Your task to perform on an android device: Open Yahoo.com Image 0: 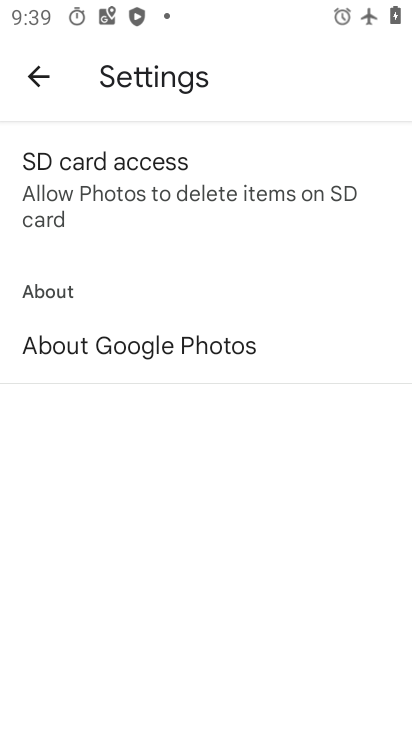
Step 0: press home button
Your task to perform on an android device: Open Yahoo.com Image 1: 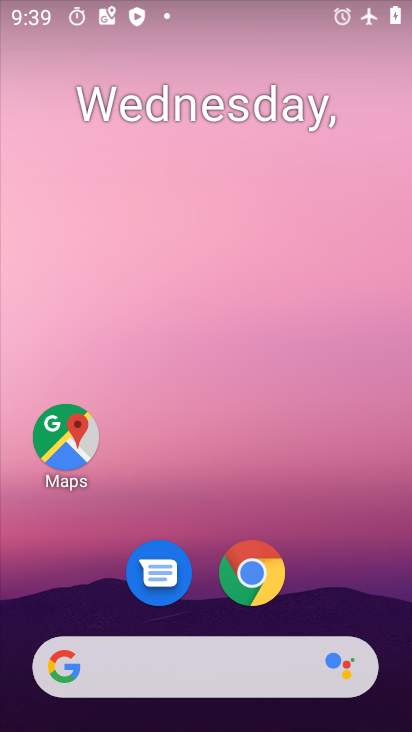
Step 1: click (241, 574)
Your task to perform on an android device: Open Yahoo.com Image 2: 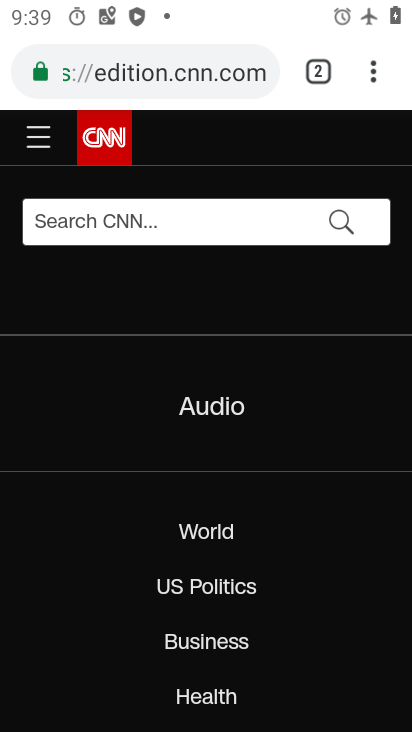
Step 2: click (232, 88)
Your task to perform on an android device: Open Yahoo.com Image 3: 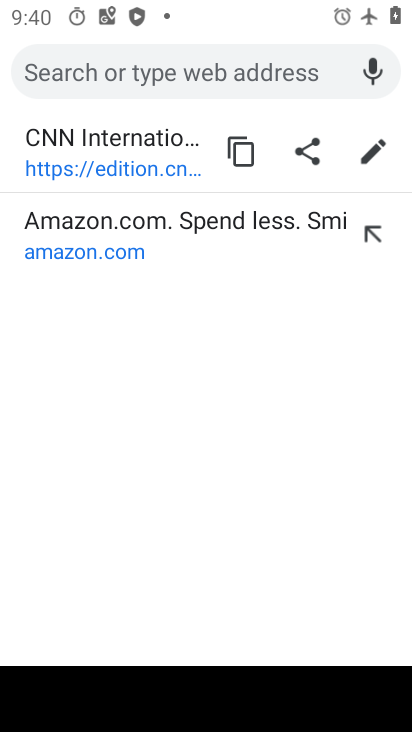
Step 3: type "yahoo"
Your task to perform on an android device: Open Yahoo.com Image 4: 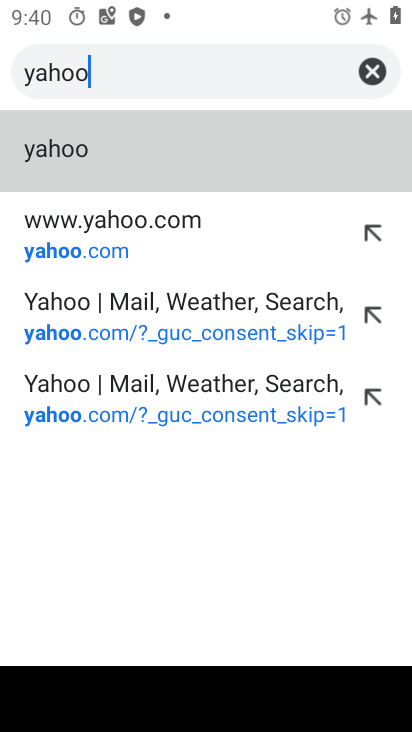
Step 4: click (276, 235)
Your task to perform on an android device: Open Yahoo.com Image 5: 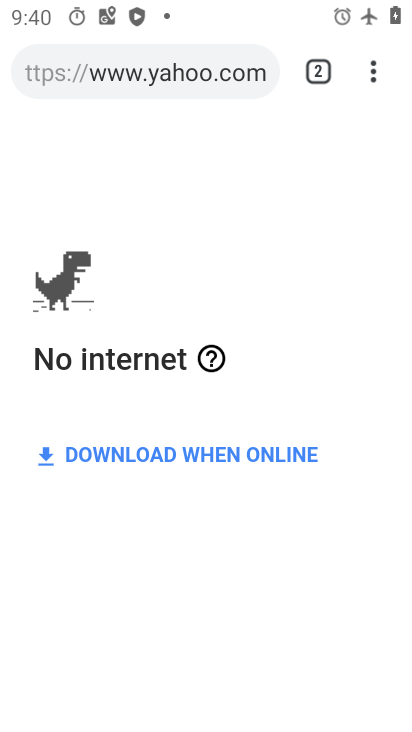
Step 5: task complete